Your task to perform on an android device: Open accessibility settings Image 0: 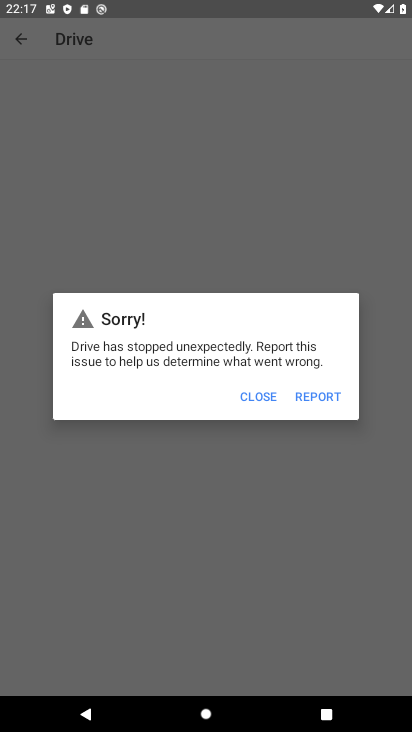
Step 0: press home button
Your task to perform on an android device: Open accessibility settings Image 1: 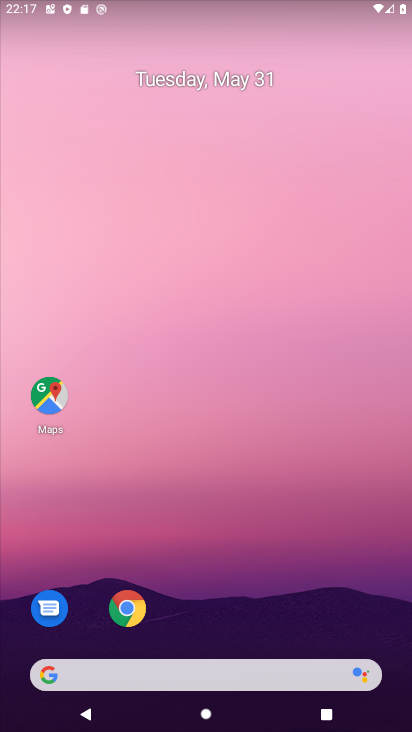
Step 1: drag from (173, 645) to (364, 4)
Your task to perform on an android device: Open accessibility settings Image 2: 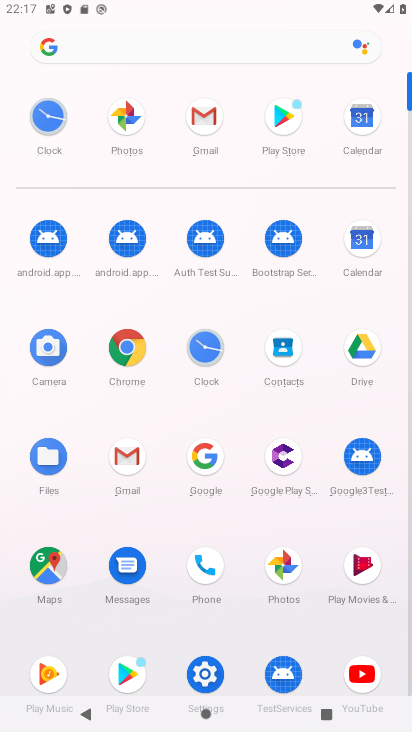
Step 2: click (182, 673)
Your task to perform on an android device: Open accessibility settings Image 3: 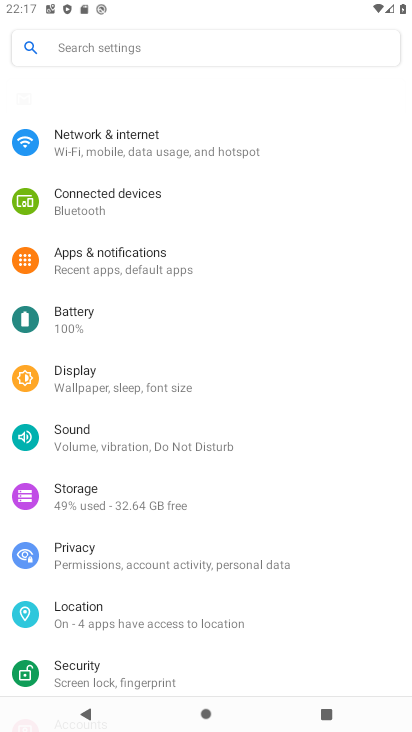
Step 3: drag from (192, 609) to (167, 105)
Your task to perform on an android device: Open accessibility settings Image 4: 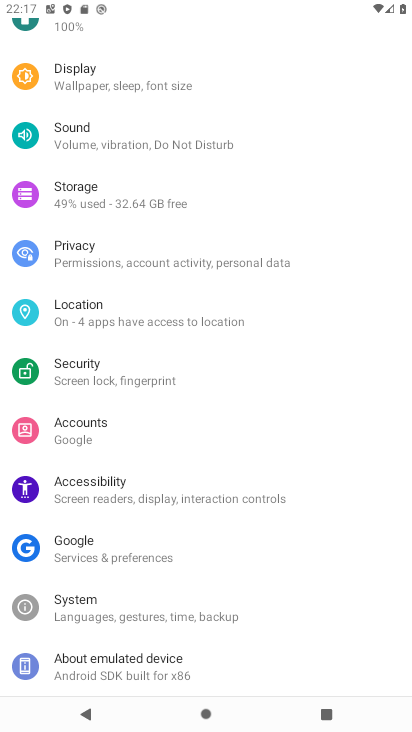
Step 4: click (80, 488)
Your task to perform on an android device: Open accessibility settings Image 5: 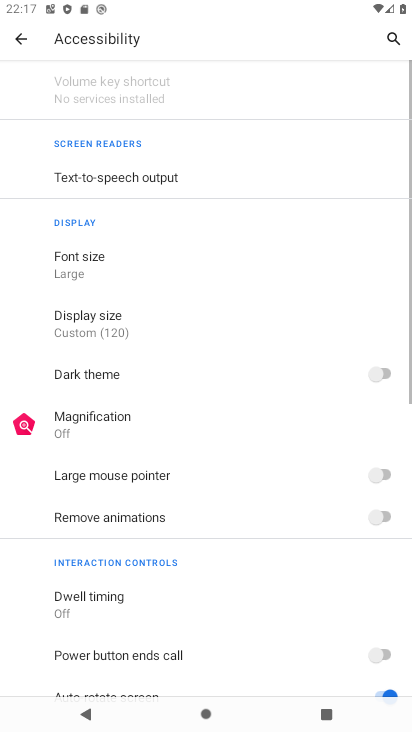
Step 5: task complete